Your task to perform on an android device: Open eBay Image 0: 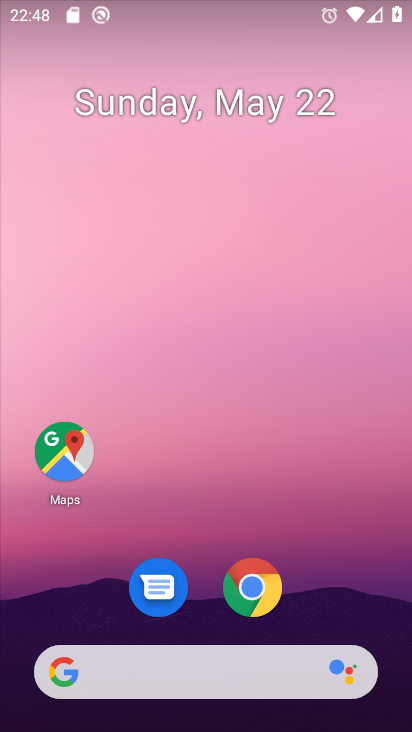
Step 0: drag from (219, 518) to (212, 23)
Your task to perform on an android device: Open eBay Image 1: 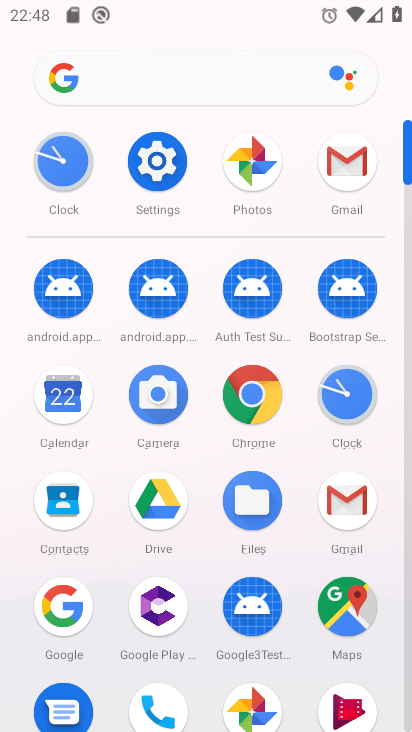
Step 1: press home button
Your task to perform on an android device: Open eBay Image 2: 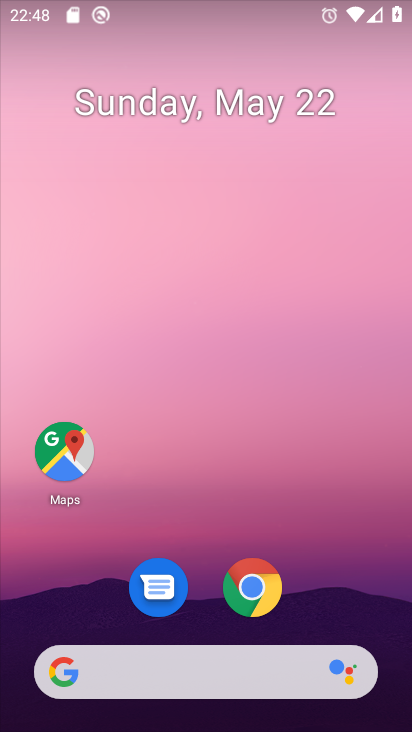
Step 2: click (159, 671)
Your task to perform on an android device: Open eBay Image 3: 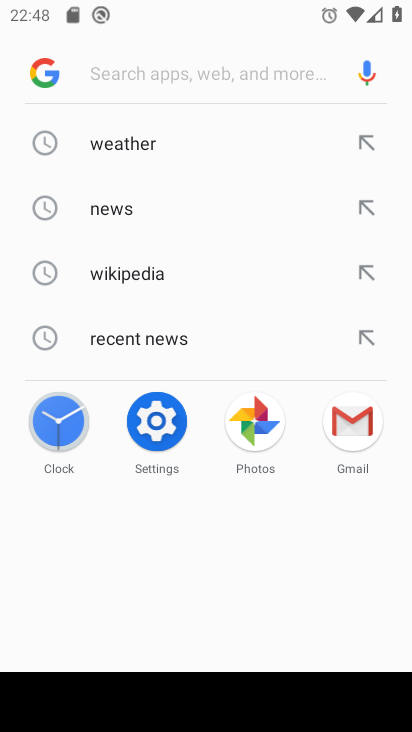
Step 3: type "ebay"
Your task to perform on an android device: Open eBay Image 4: 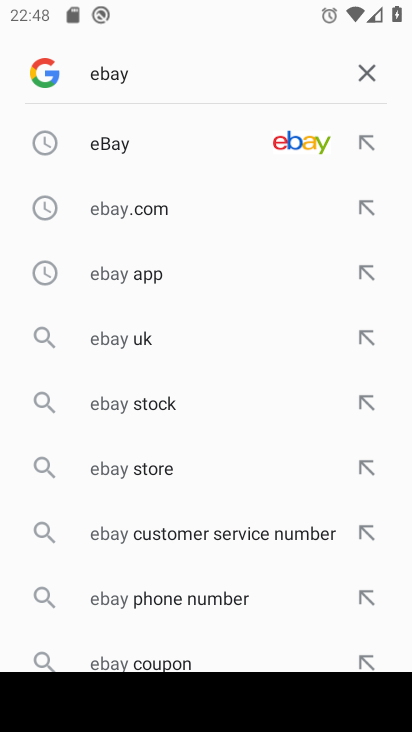
Step 4: click (115, 137)
Your task to perform on an android device: Open eBay Image 5: 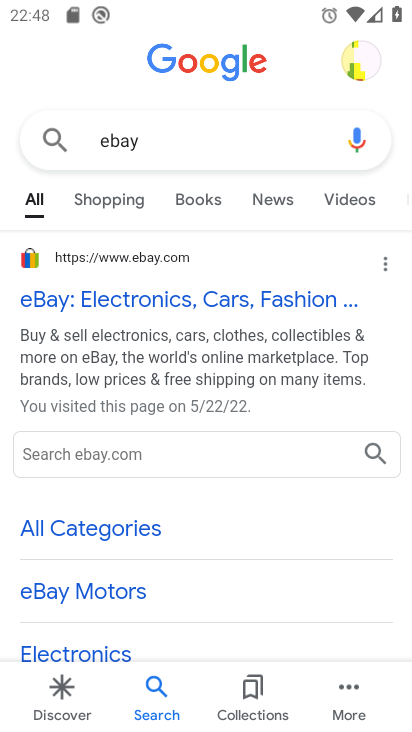
Step 5: click (56, 292)
Your task to perform on an android device: Open eBay Image 6: 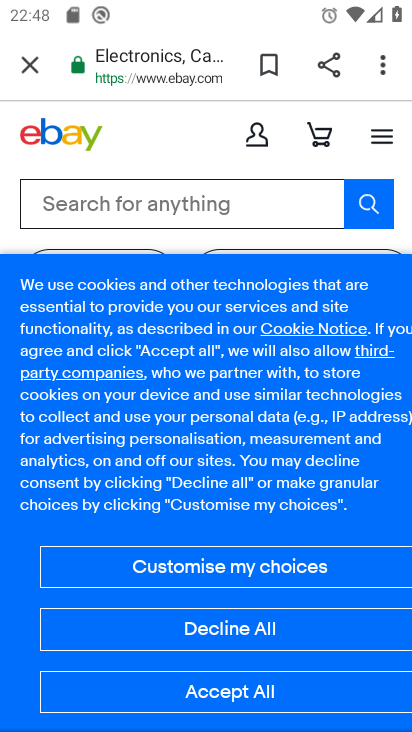
Step 6: task complete